Your task to perform on an android device: Go to accessibility settings Image 0: 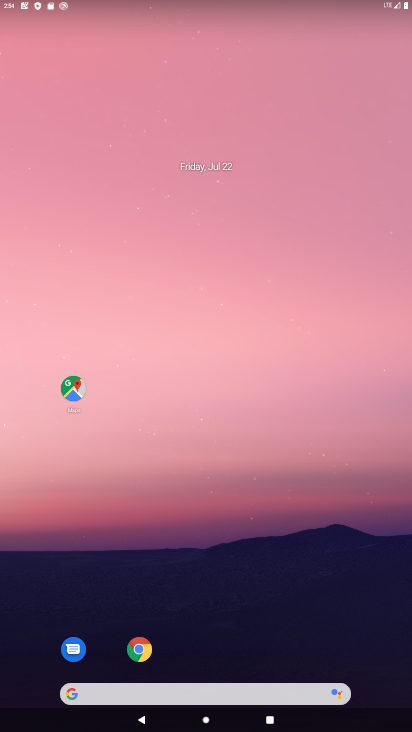
Step 0: drag from (214, 261) to (214, 192)
Your task to perform on an android device: Go to accessibility settings Image 1: 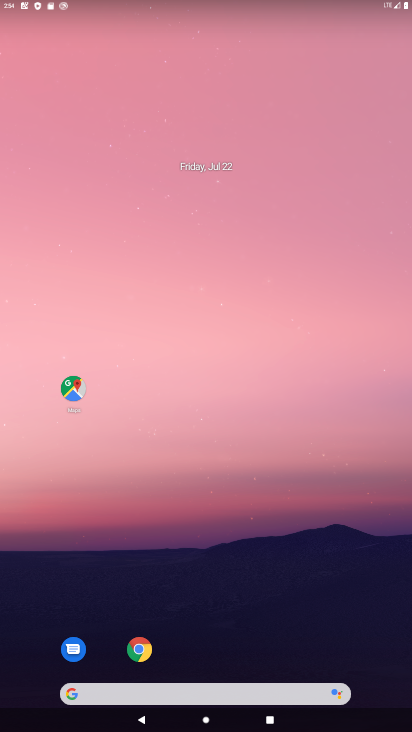
Step 1: drag from (195, 633) to (275, 79)
Your task to perform on an android device: Go to accessibility settings Image 2: 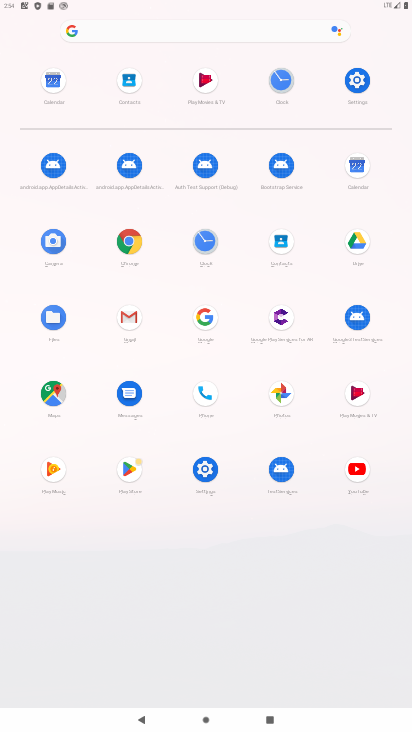
Step 2: click (354, 77)
Your task to perform on an android device: Go to accessibility settings Image 3: 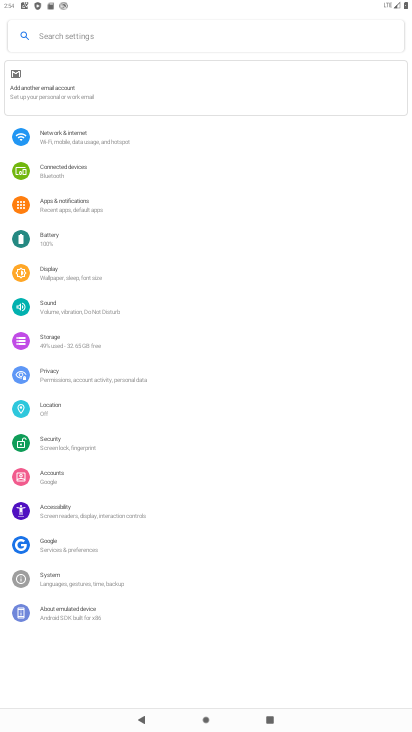
Step 3: click (97, 506)
Your task to perform on an android device: Go to accessibility settings Image 4: 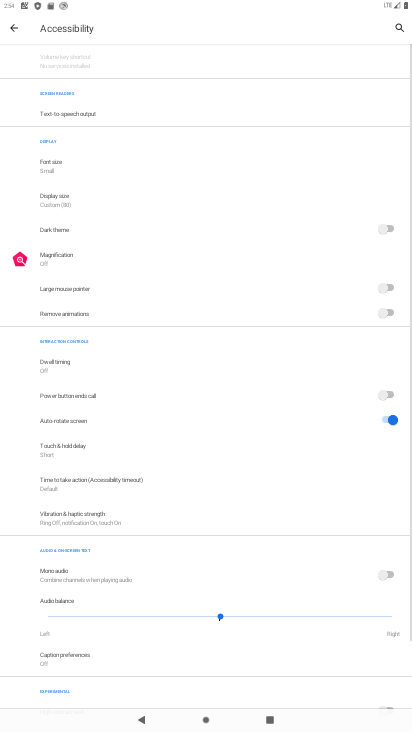
Step 4: task complete